Your task to perform on an android device: toggle sleep mode Image 0: 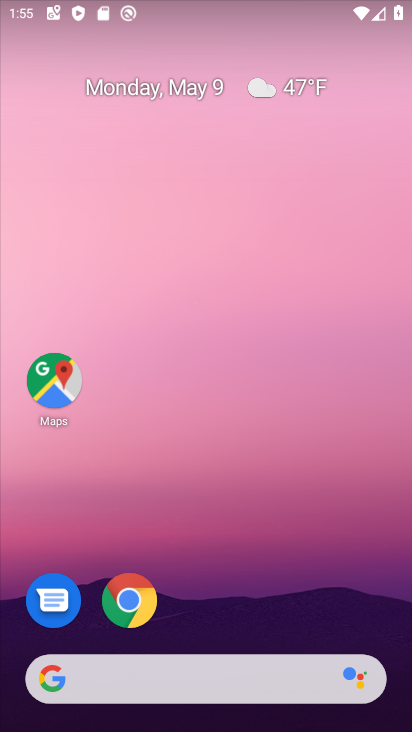
Step 0: drag from (196, 630) to (212, 359)
Your task to perform on an android device: toggle sleep mode Image 1: 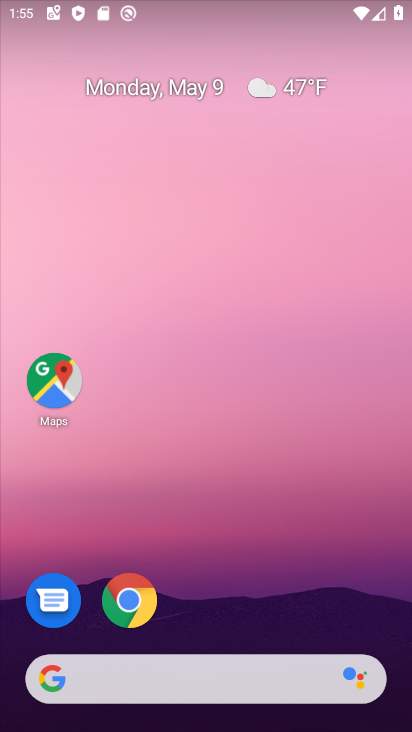
Step 1: drag from (211, 628) to (230, 284)
Your task to perform on an android device: toggle sleep mode Image 2: 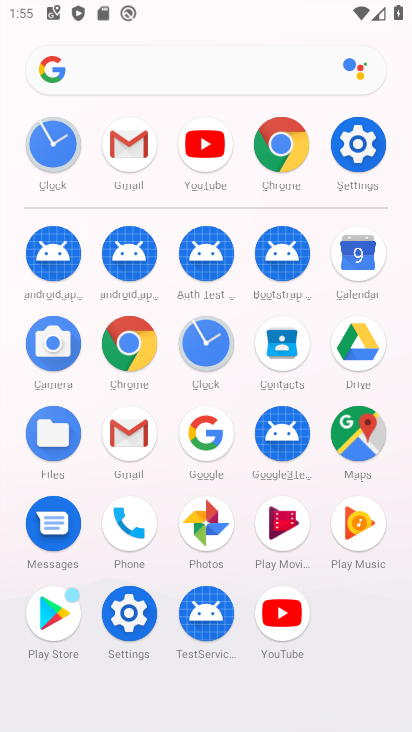
Step 2: click (368, 138)
Your task to perform on an android device: toggle sleep mode Image 3: 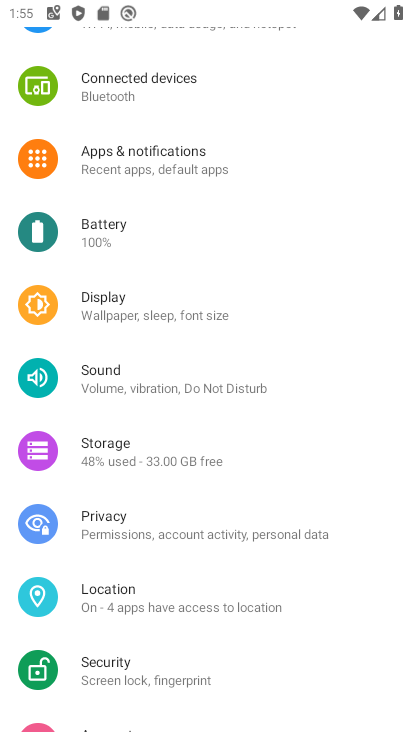
Step 3: task complete